Your task to perform on an android device: What's the weather? Image 0: 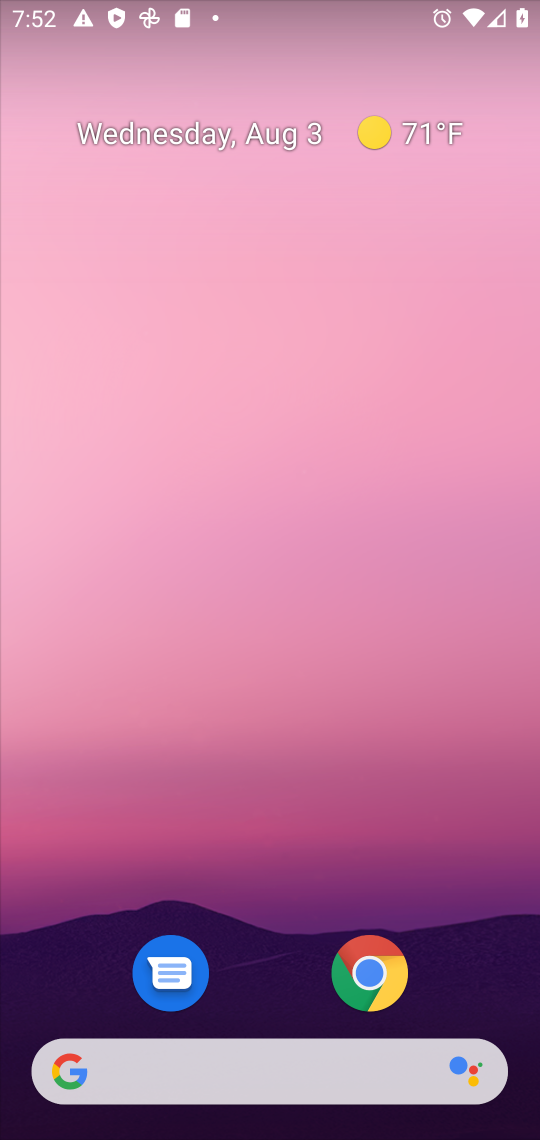
Step 0: click (198, 1058)
Your task to perform on an android device: What's the weather? Image 1: 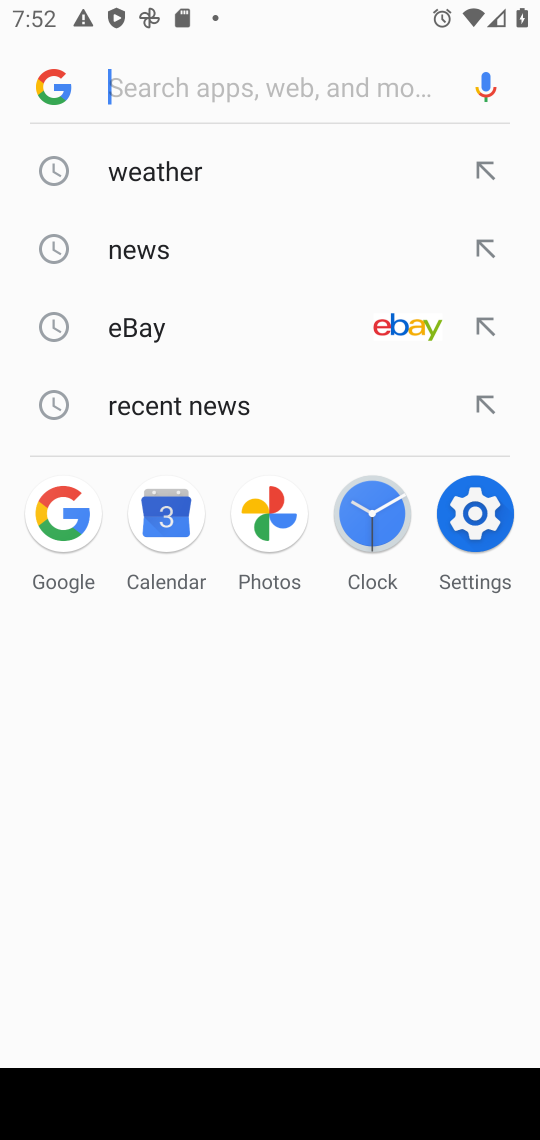
Step 1: click (176, 181)
Your task to perform on an android device: What's the weather? Image 2: 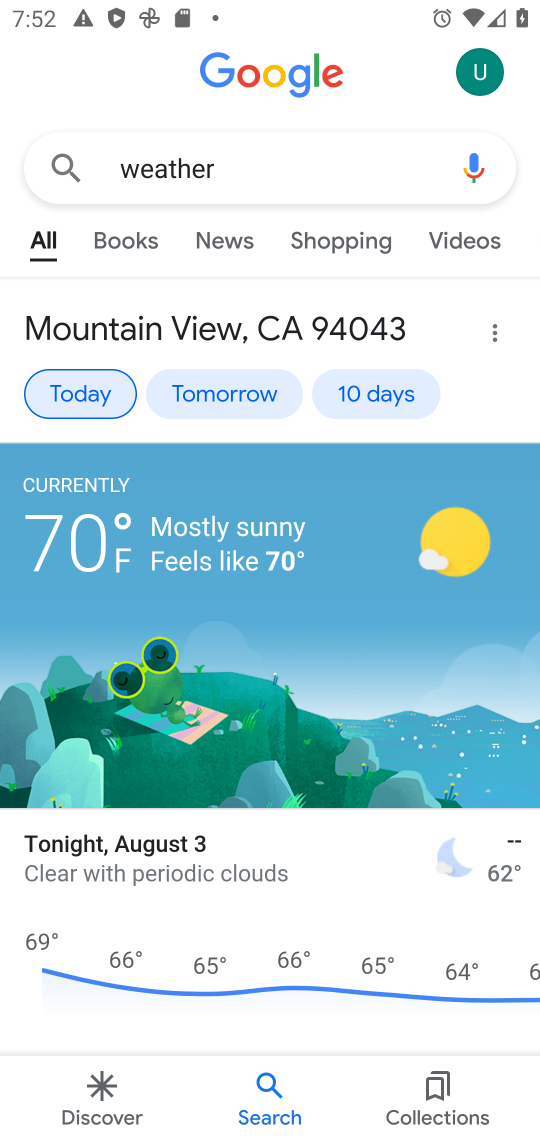
Step 2: task complete